Your task to perform on an android device: turn pop-ups on in chrome Image 0: 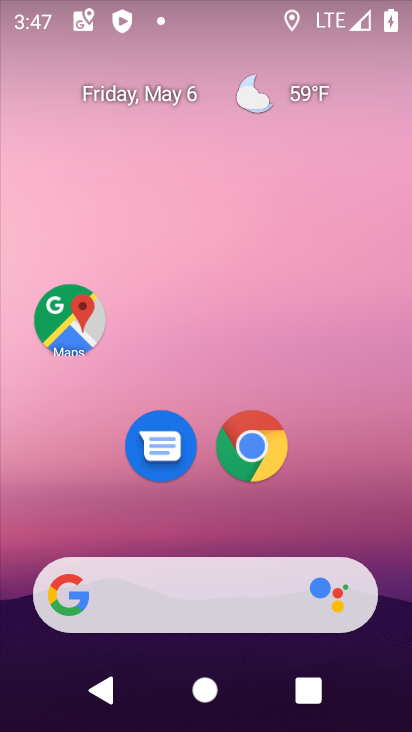
Step 0: click (262, 466)
Your task to perform on an android device: turn pop-ups on in chrome Image 1: 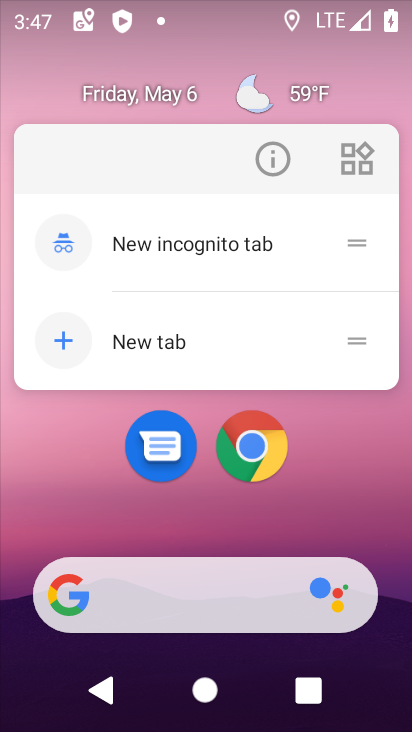
Step 1: click (262, 466)
Your task to perform on an android device: turn pop-ups on in chrome Image 2: 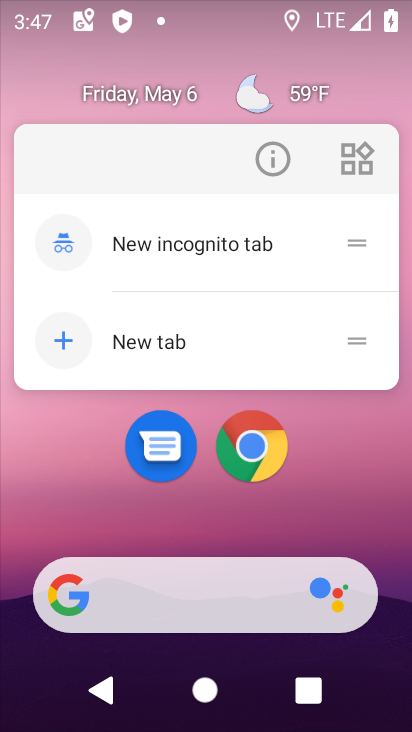
Step 2: click (262, 466)
Your task to perform on an android device: turn pop-ups on in chrome Image 3: 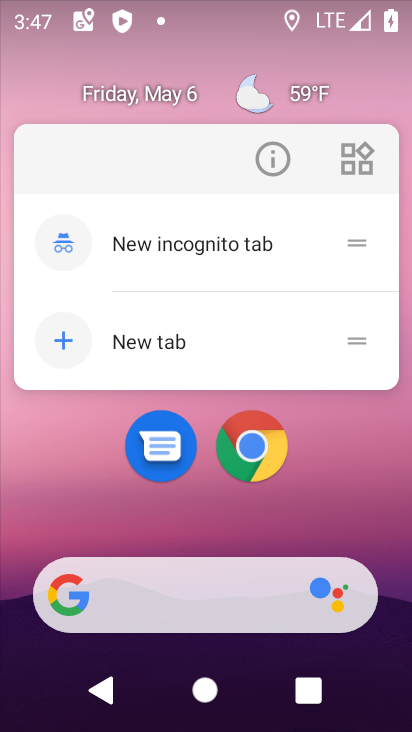
Step 3: click (262, 466)
Your task to perform on an android device: turn pop-ups on in chrome Image 4: 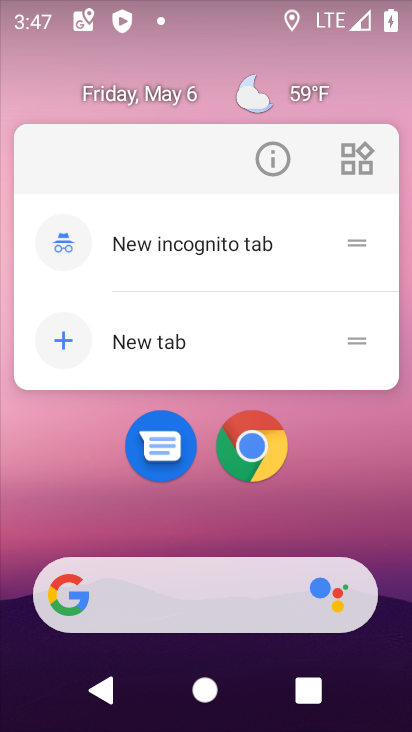
Step 4: click (275, 451)
Your task to perform on an android device: turn pop-ups on in chrome Image 5: 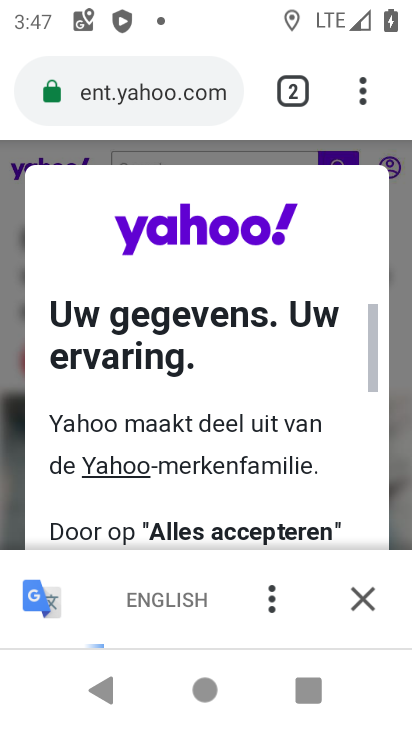
Step 5: drag from (362, 82) to (175, 485)
Your task to perform on an android device: turn pop-ups on in chrome Image 6: 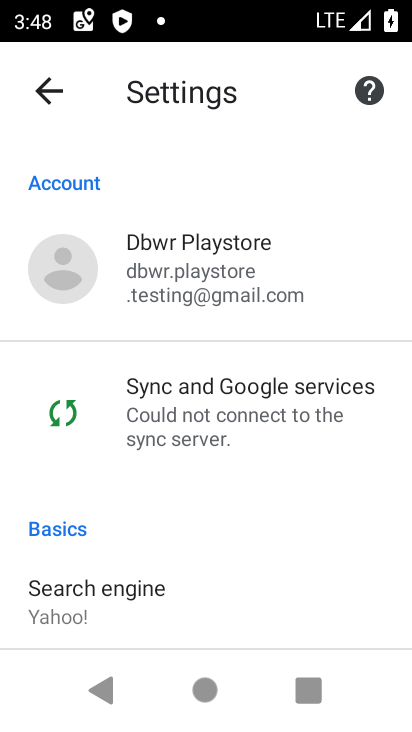
Step 6: drag from (187, 553) to (184, 128)
Your task to perform on an android device: turn pop-ups on in chrome Image 7: 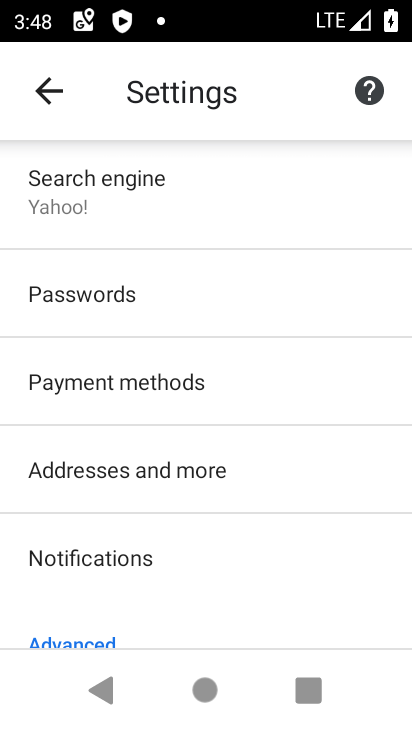
Step 7: drag from (175, 557) to (211, 177)
Your task to perform on an android device: turn pop-ups on in chrome Image 8: 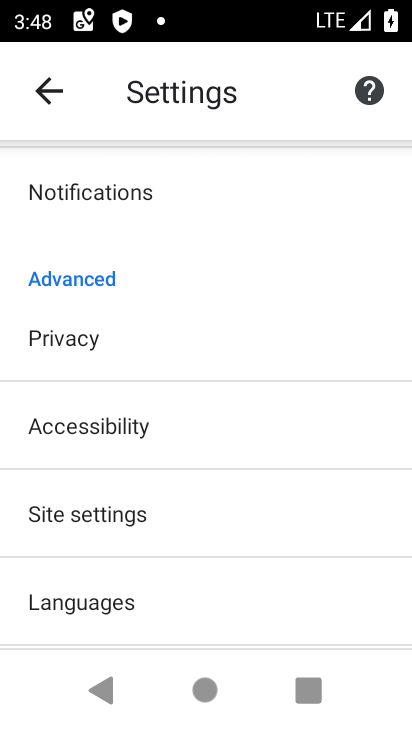
Step 8: click (150, 524)
Your task to perform on an android device: turn pop-ups on in chrome Image 9: 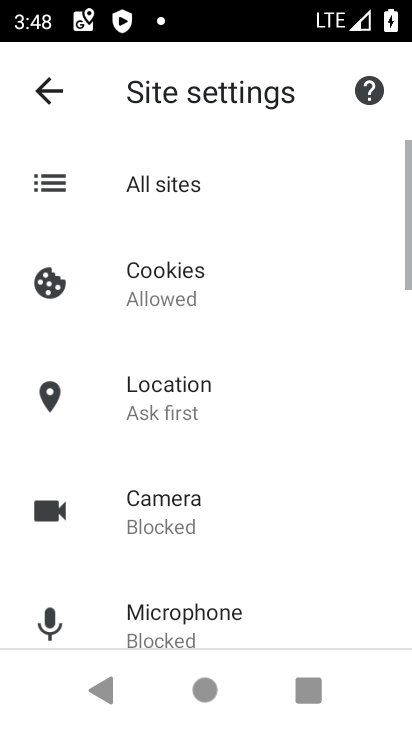
Step 9: drag from (213, 582) to (259, 205)
Your task to perform on an android device: turn pop-ups on in chrome Image 10: 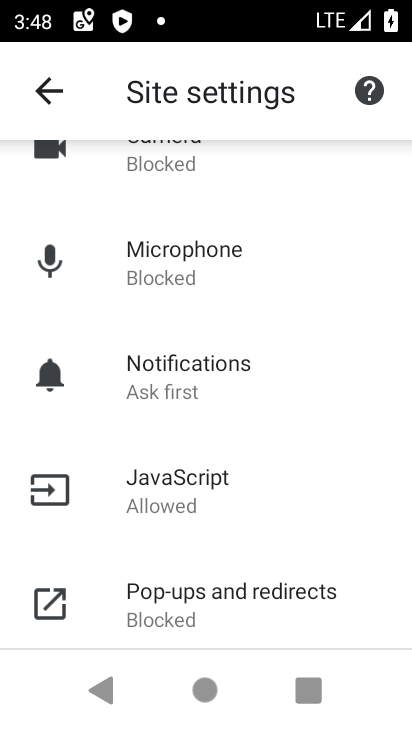
Step 10: click (256, 609)
Your task to perform on an android device: turn pop-ups on in chrome Image 11: 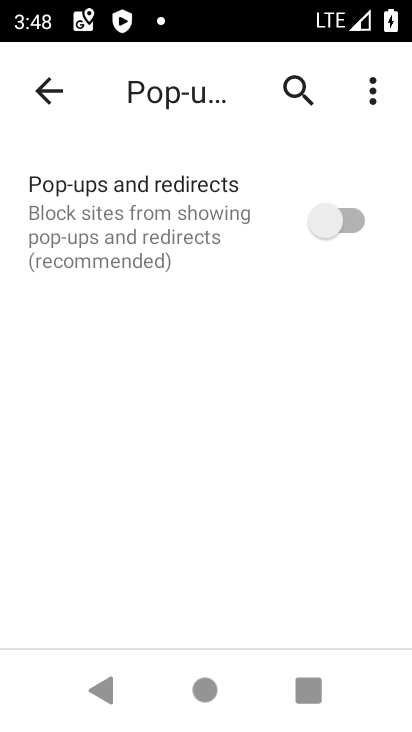
Step 11: click (344, 222)
Your task to perform on an android device: turn pop-ups on in chrome Image 12: 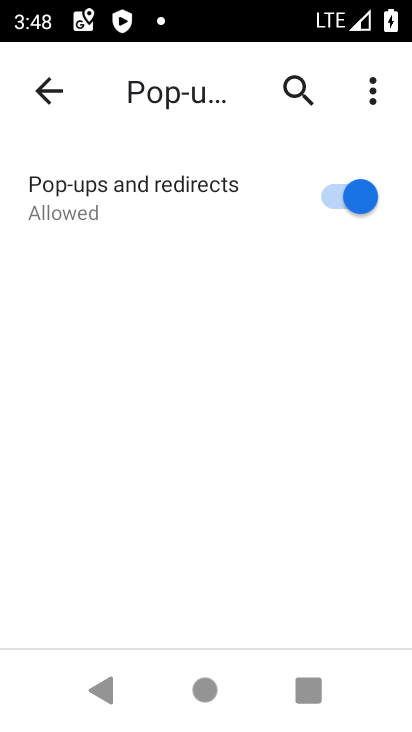
Step 12: task complete